Your task to perform on an android device: turn on data saver in the chrome app Image 0: 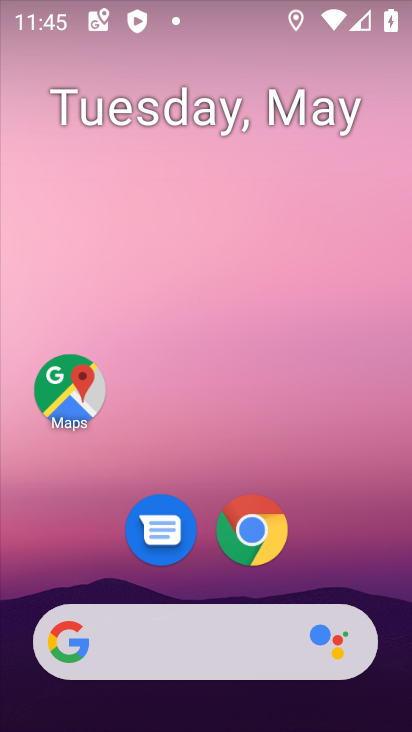
Step 0: click (253, 529)
Your task to perform on an android device: turn on data saver in the chrome app Image 1: 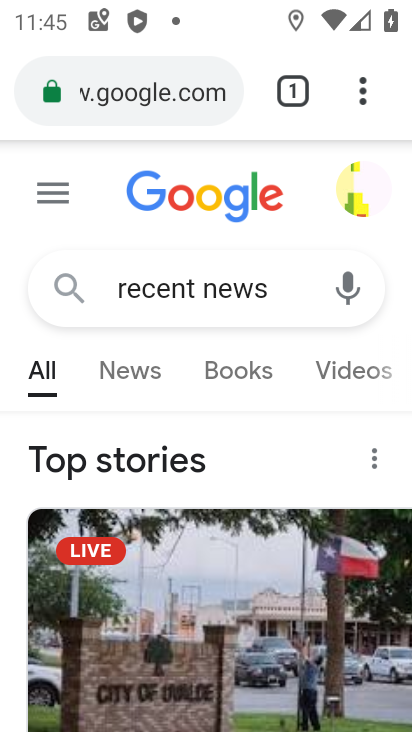
Step 1: click (363, 95)
Your task to perform on an android device: turn on data saver in the chrome app Image 2: 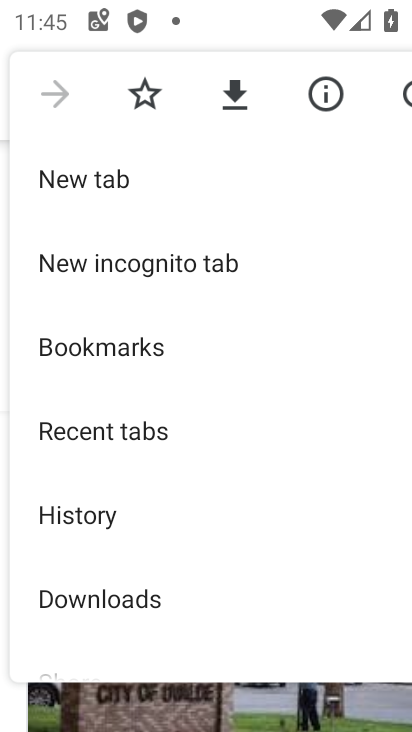
Step 2: drag from (145, 463) to (188, 76)
Your task to perform on an android device: turn on data saver in the chrome app Image 3: 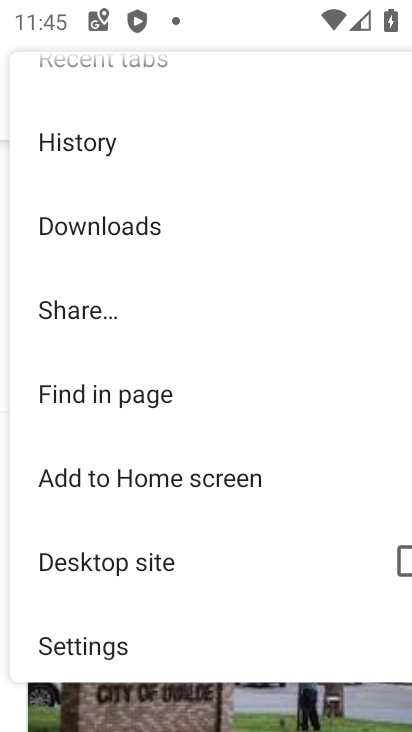
Step 3: click (78, 643)
Your task to perform on an android device: turn on data saver in the chrome app Image 4: 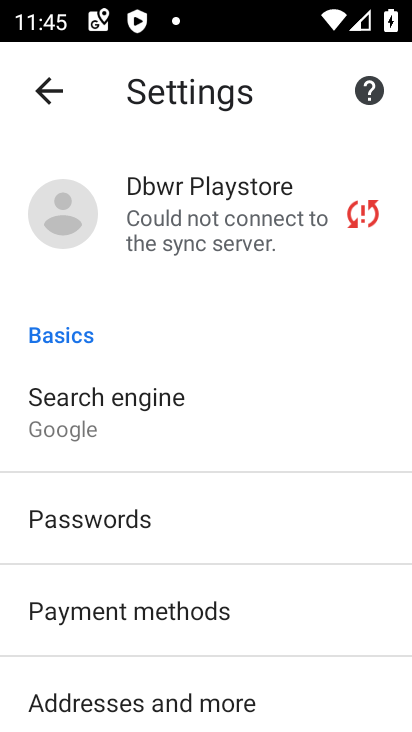
Step 4: drag from (65, 653) to (98, 182)
Your task to perform on an android device: turn on data saver in the chrome app Image 5: 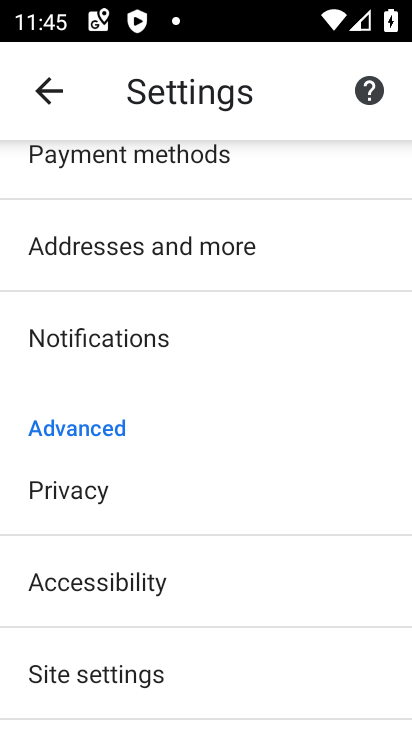
Step 5: drag from (108, 649) to (105, 287)
Your task to perform on an android device: turn on data saver in the chrome app Image 6: 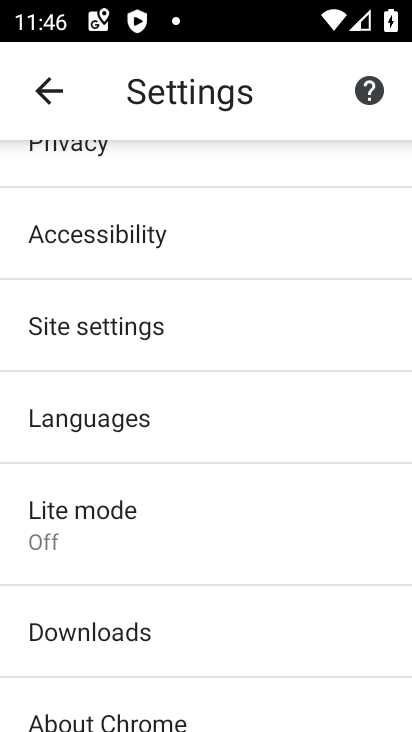
Step 6: click (71, 530)
Your task to perform on an android device: turn on data saver in the chrome app Image 7: 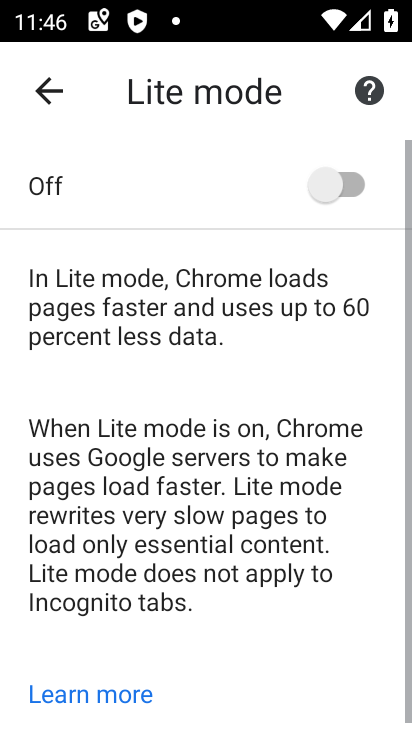
Step 7: click (356, 183)
Your task to perform on an android device: turn on data saver in the chrome app Image 8: 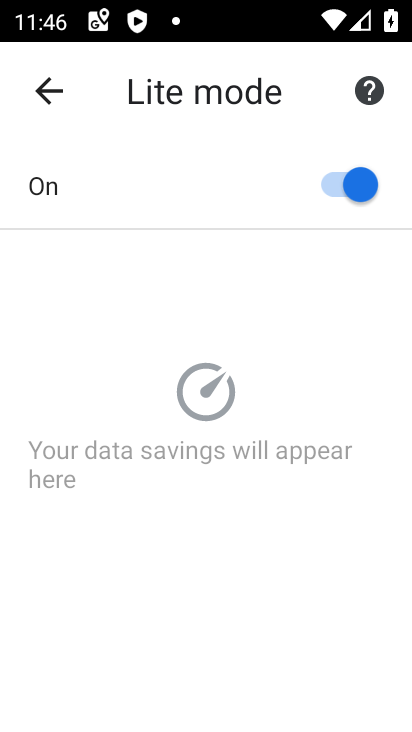
Step 8: task complete